Your task to perform on an android device: turn pop-ups on in chrome Image 0: 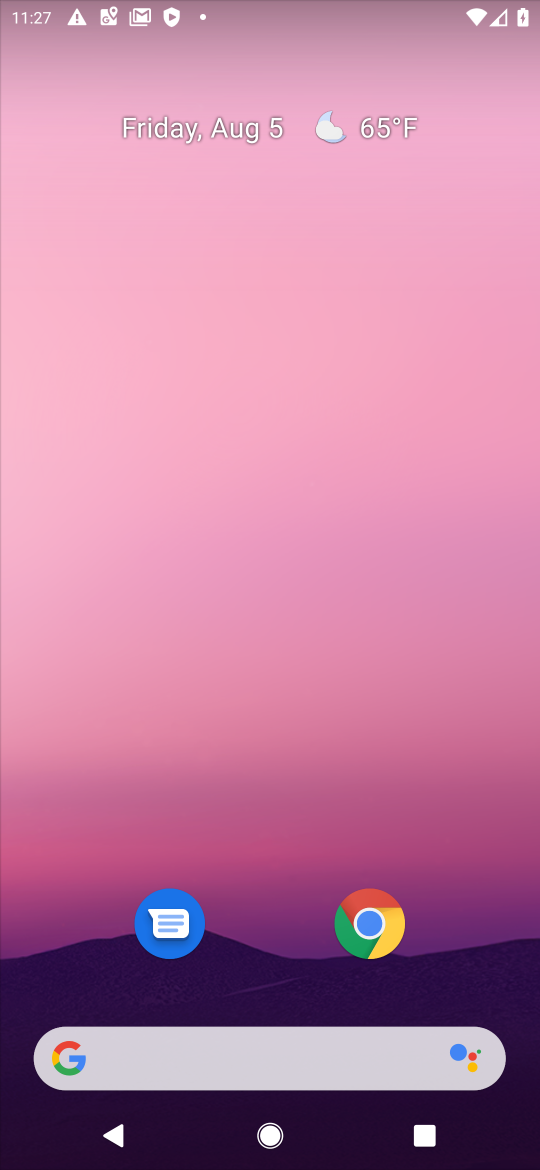
Step 0: press home button
Your task to perform on an android device: turn pop-ups on in chrome Image 1: 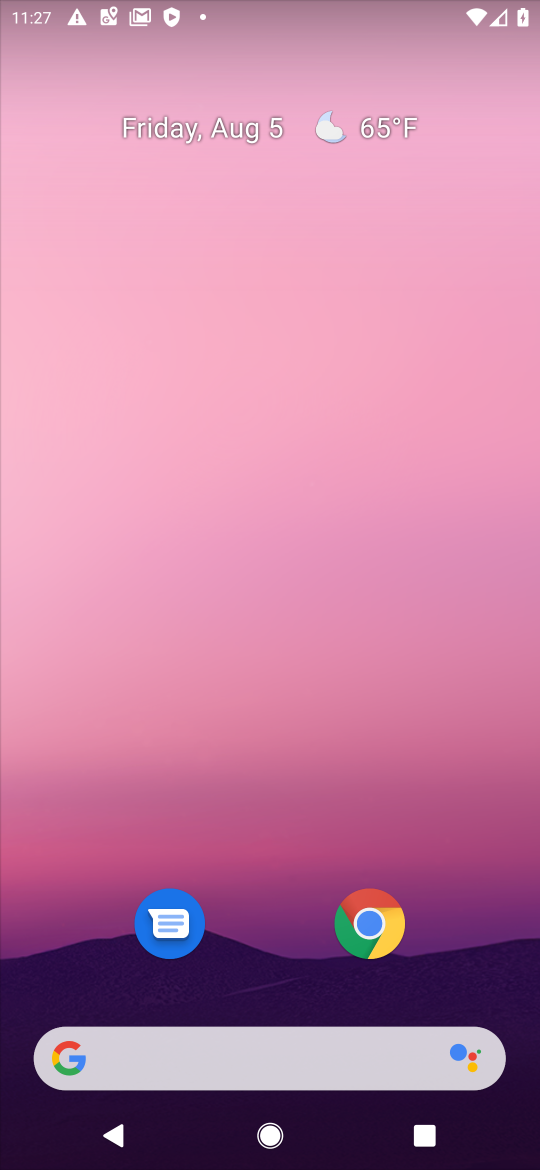
Step 1: click (374, 959)
Your task to perform on an android device: turn pop-ups on in chrome Image 2: 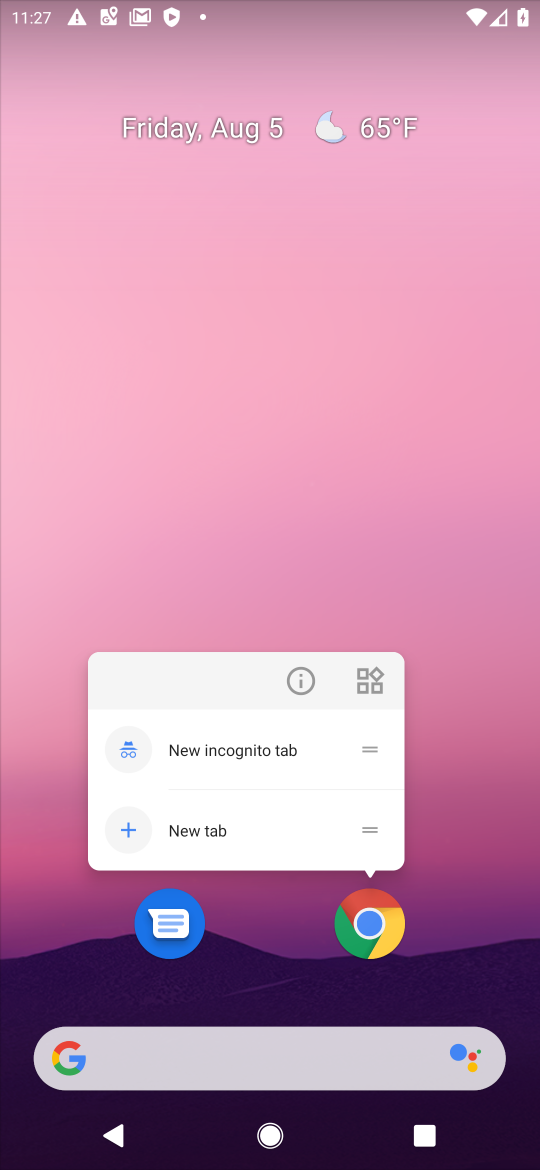
Step 2: click (370, 932)
Your task to perform on an android device: turn pop-ups on in chrome Image 3: 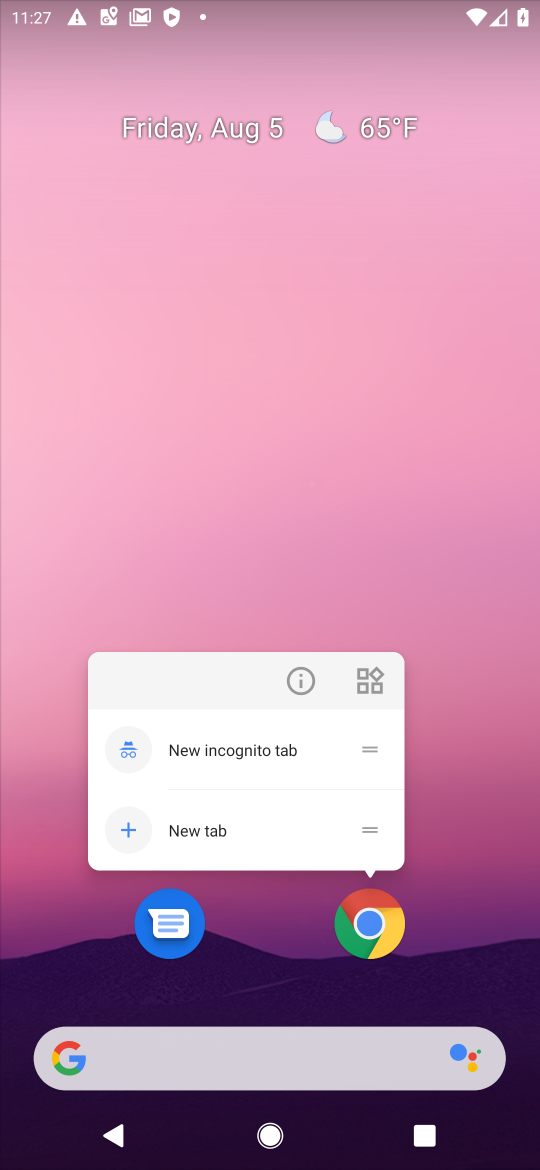
Step 3: drag from (384, 1053) to (114, 11)
Your task to perform on an android device: turn pop-ups on in chrome Image 4: 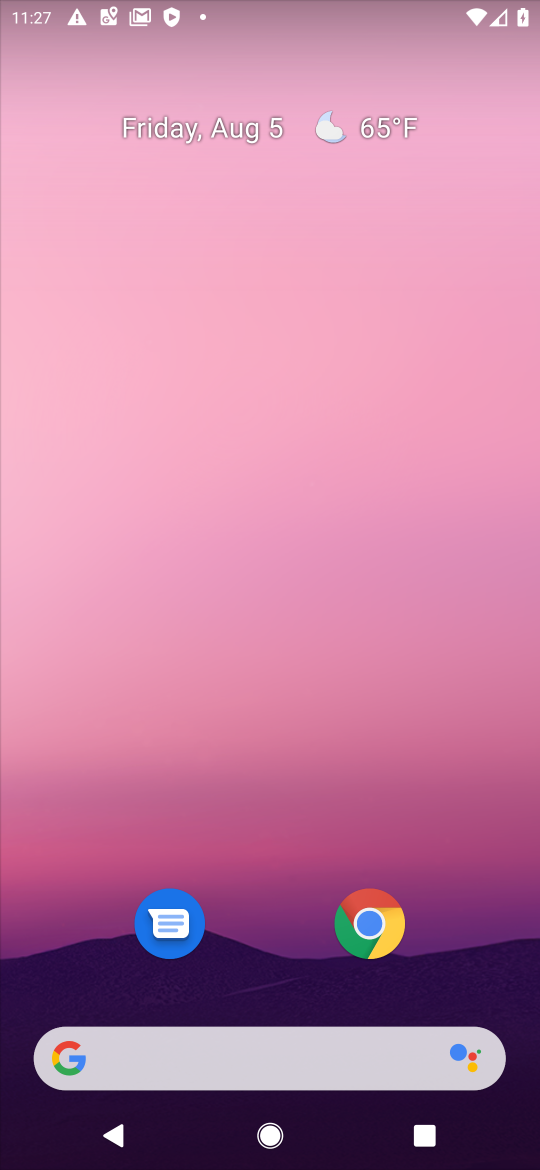
Step 4: drag from (200, 1028) to (200, 330)
Your task to perform on an android device: turn pop-ups on in chrome Image 5: 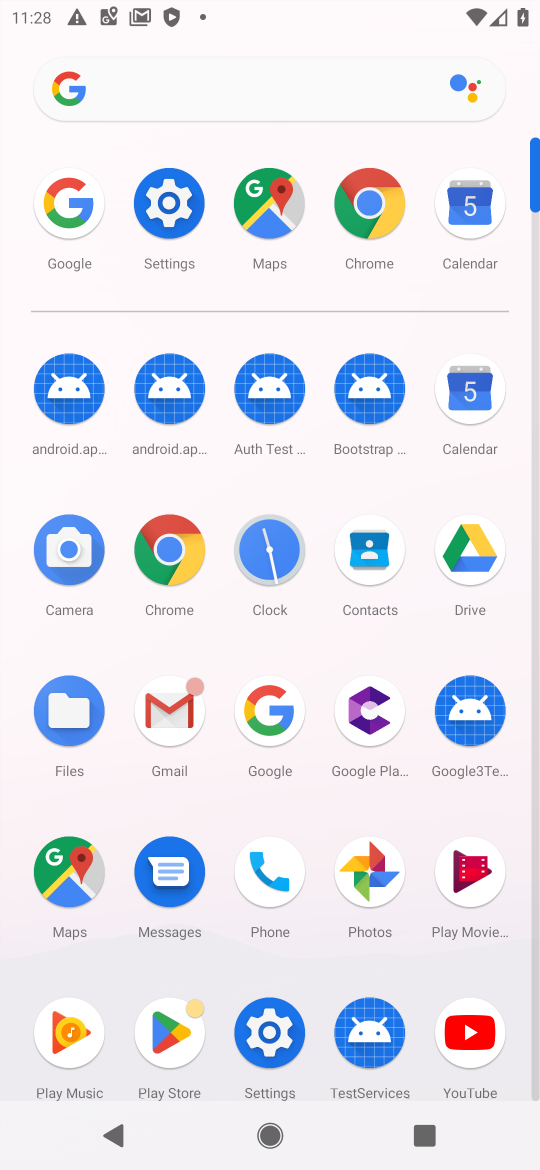
Step 5: click (169, 543)
Your task to perform on an android device: turn pop-ups on in chrome Image 6: 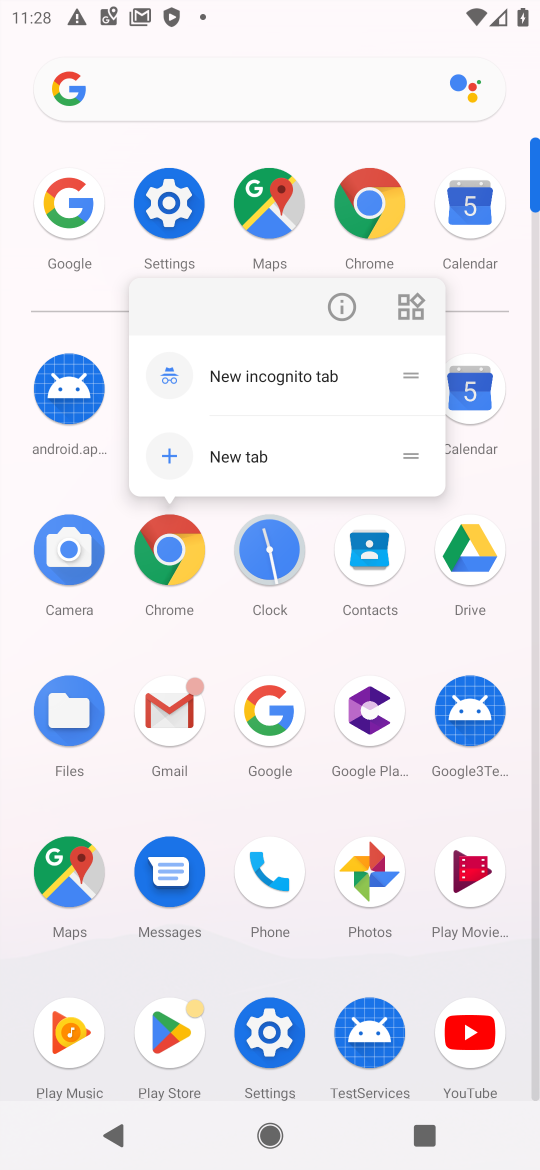
Step 6: click (159, 549)
Your task to perform on an android device: turn pop-ups on in chrome Image 7: 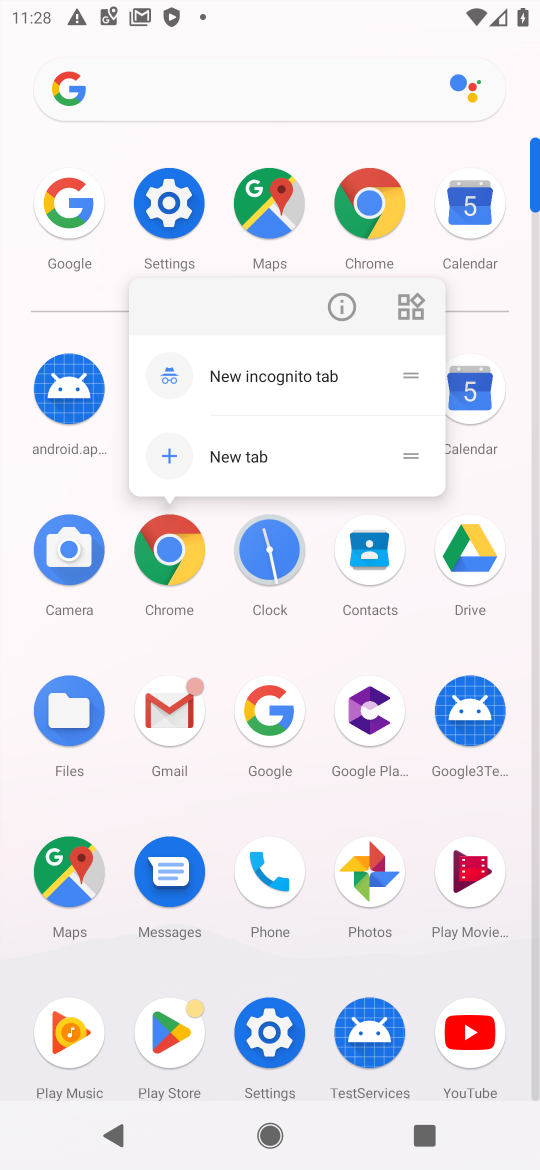
Step 7: click (159, 549)
Your task to perform on an android device: turn pop-ups on in chrome Image 8: 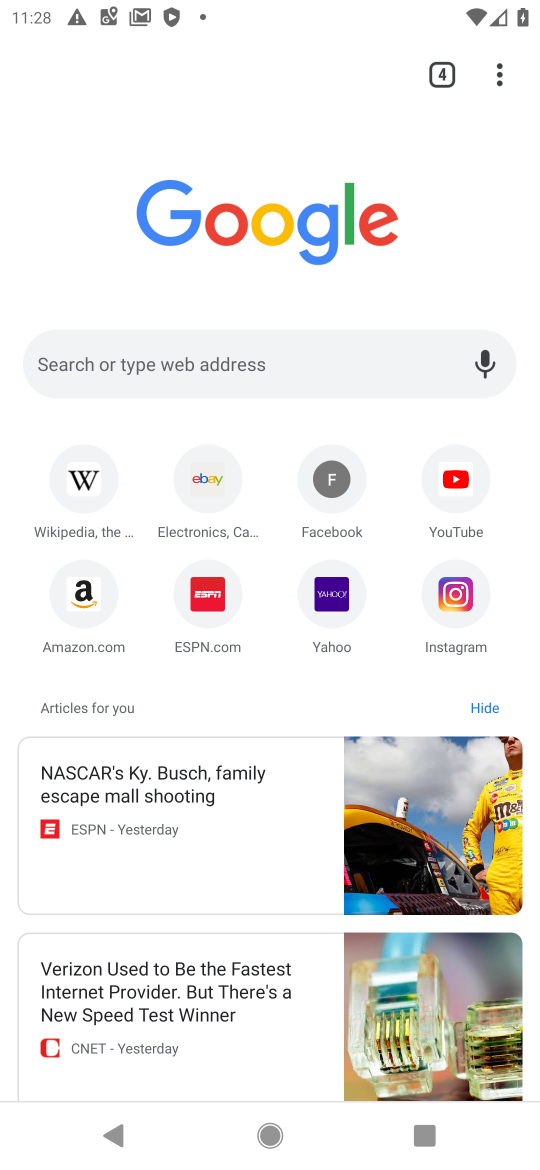
Step 8: drag from (505, 69) to (219, 625)
Your task to perform on an android device: turn pop-ups on in chrome Image 9: 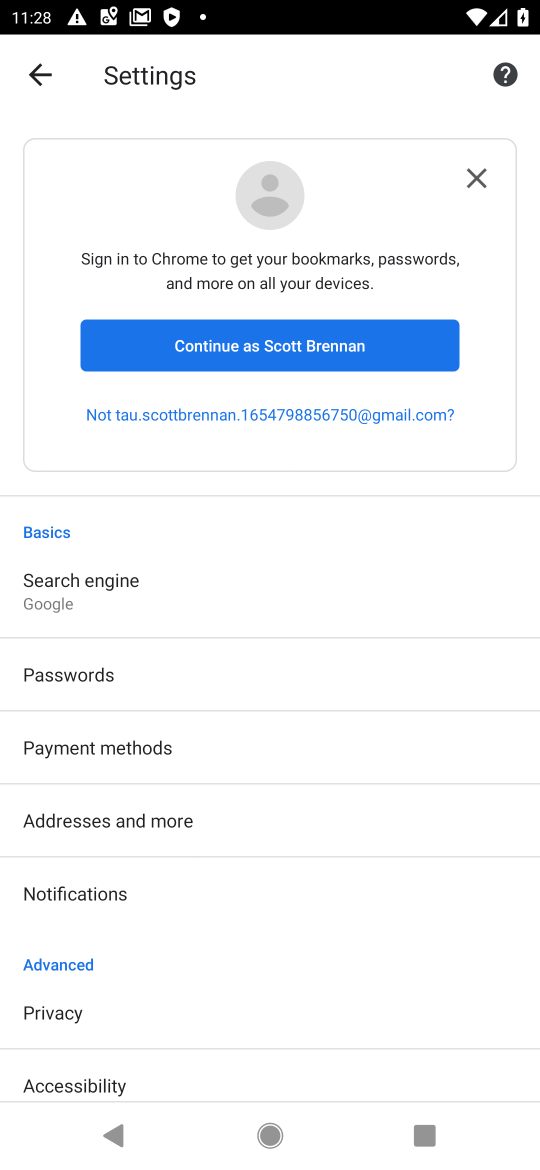
Step 9: drag from (142, 1009) to (148, 506)
Your task to perform on an android device: turn pop-ups on in chrome Image 10: 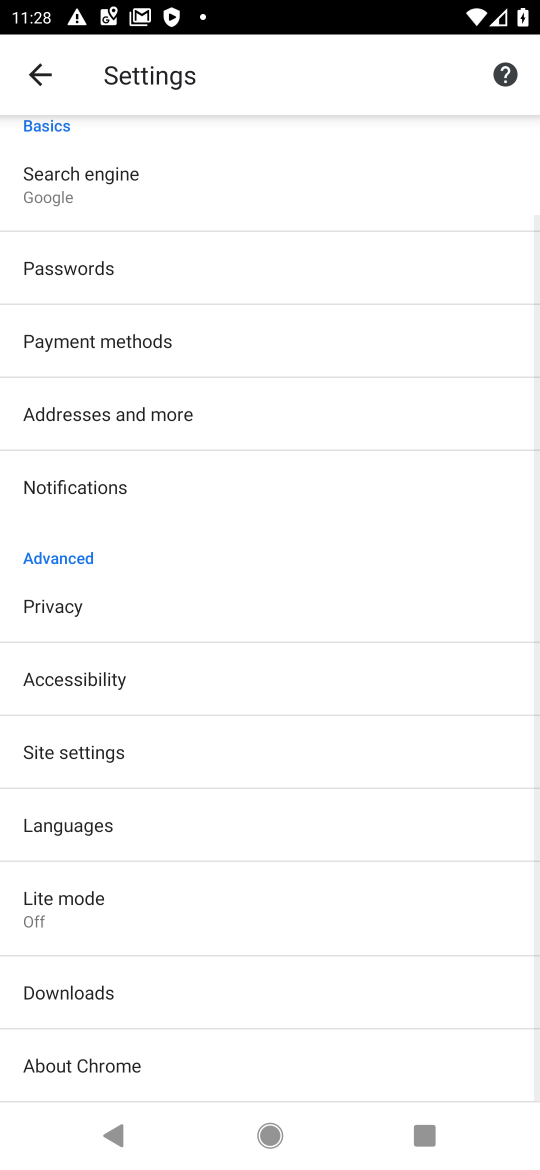
Step 10: click (61, 777)
Your task to perform on an android device: turn pop-ups on in chrome Image 11: 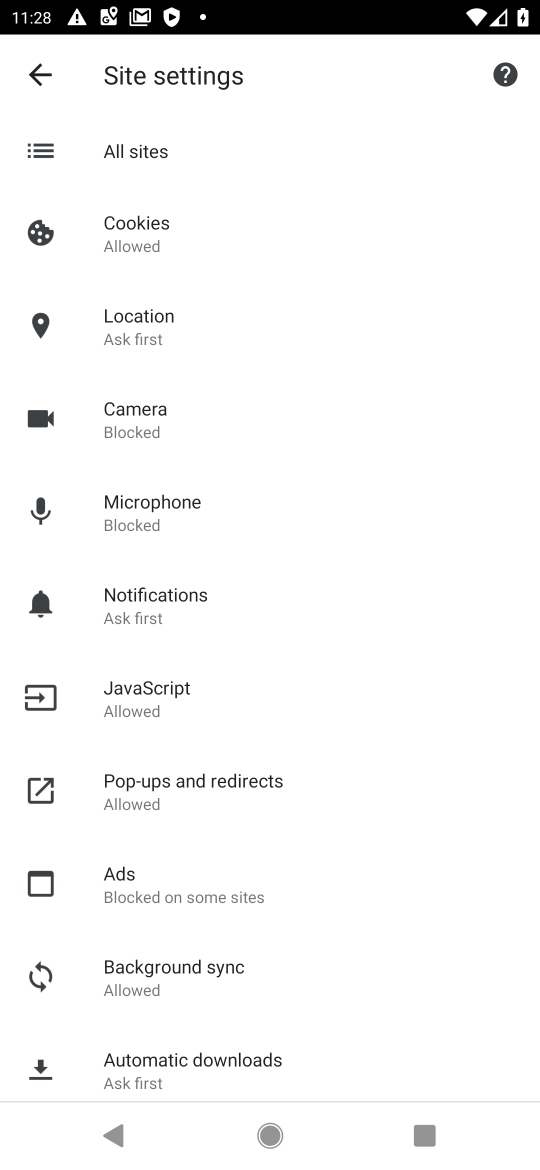
Step 11: click (175, 781)
Your task to perform on an android device: turn pop-ups on in chrome Image 12: 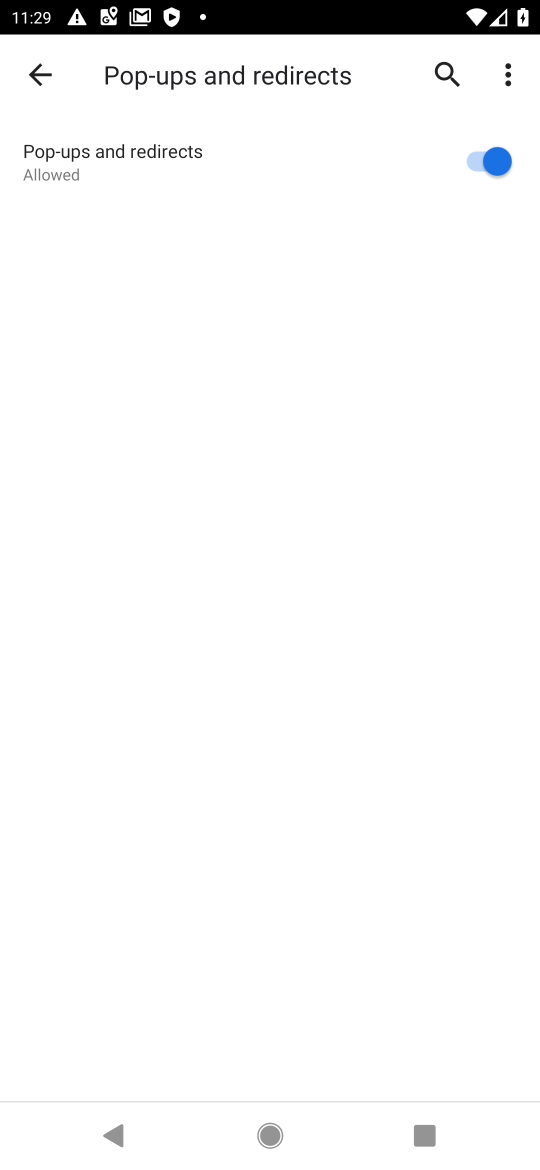
Step 12: task complete